Your task to perform on an android device: uninstall "Microsoft Authenticator" Image 0: 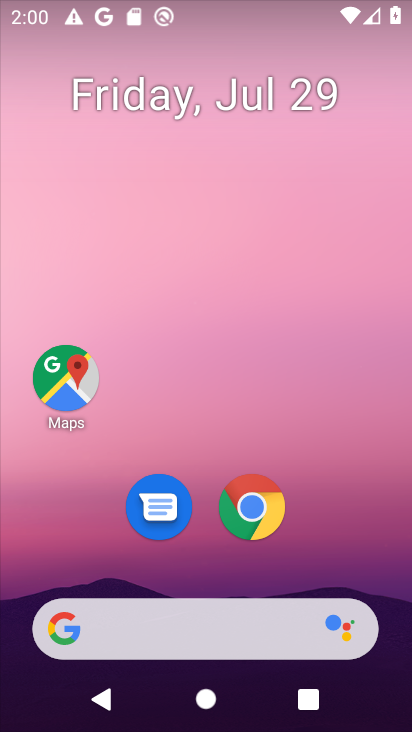
Step 0: task impossible